Your task to perform on an android device: Go to Reddit.com Image 0: 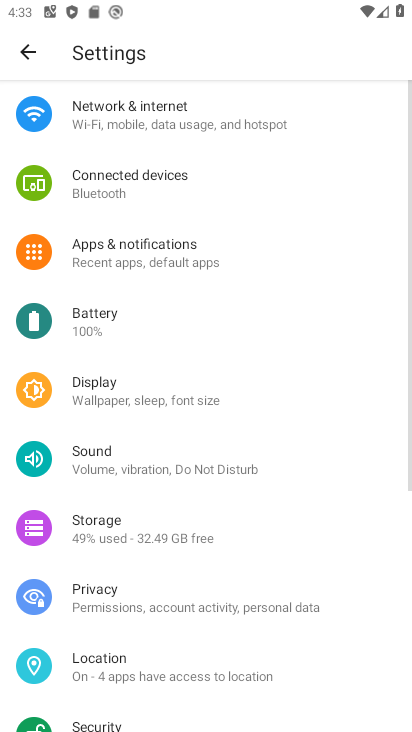
Step 0: press home button
Your task to perform on an android device: Go to Reddit.com Image 1: 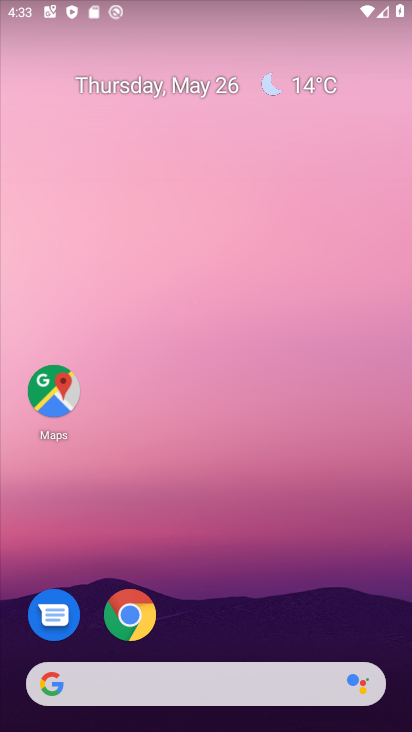
Step 1: drag from (216, 596) to (234, 95)
Your task to perform on an android device: Go to Reddit.com Image 2: 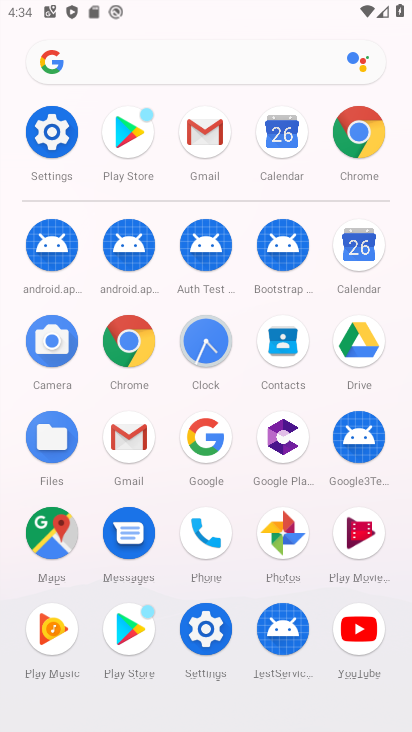
Step 2: click (357, 134)
Your task to perform on an android device: Go to Reddit.com Image 3: 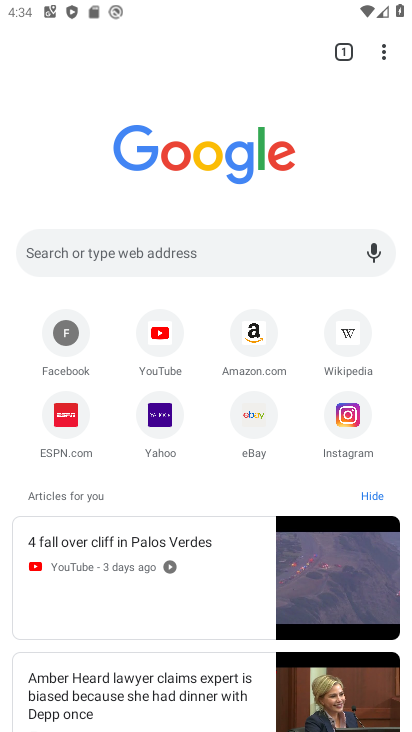
Step 3: click (199, 246)
Your task to perform on an android device: Go to Reddit.com Image 4: 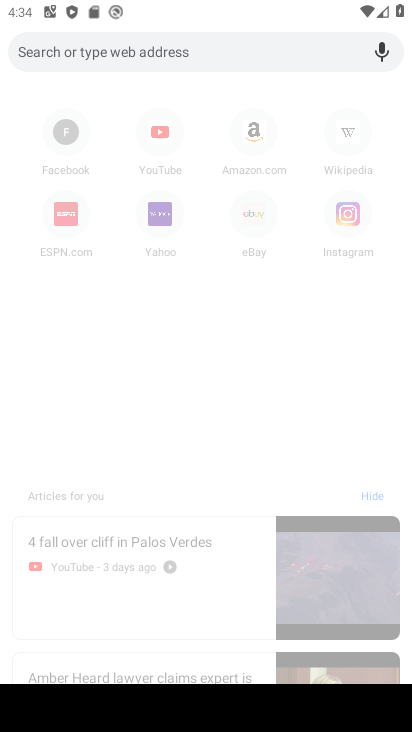
Step 4: type "reddit.com"
Your task to perform on an android device: Go to Reddit.com Image 5: 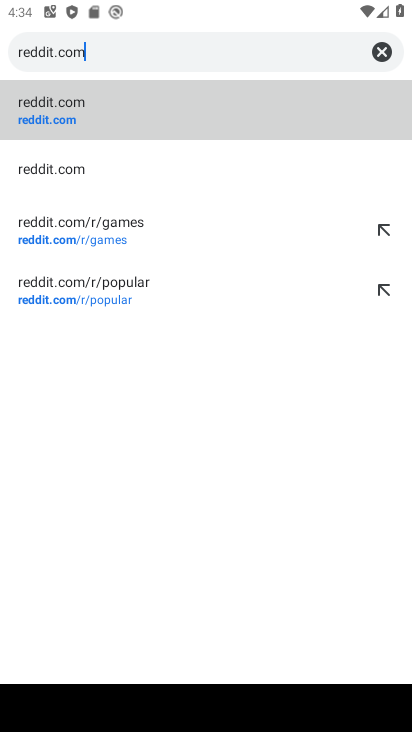
Step 5: click (28, 113)
Your task to perform on an android device: Go to Reddit.com Image 6: 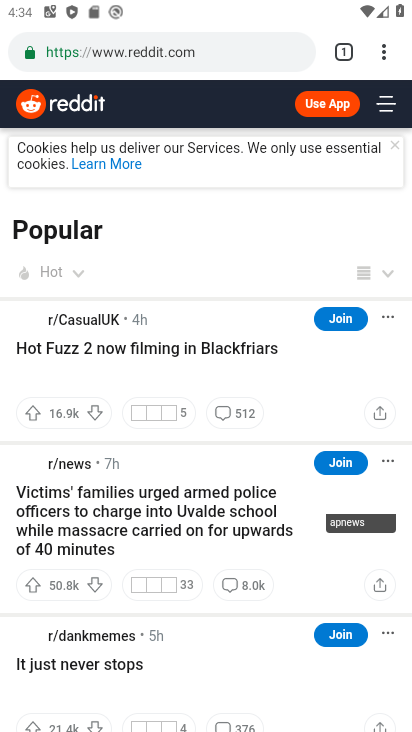
Step 6: task complete